Your task to perform on an android device: Open Chrome and go to the settings page Image 0: 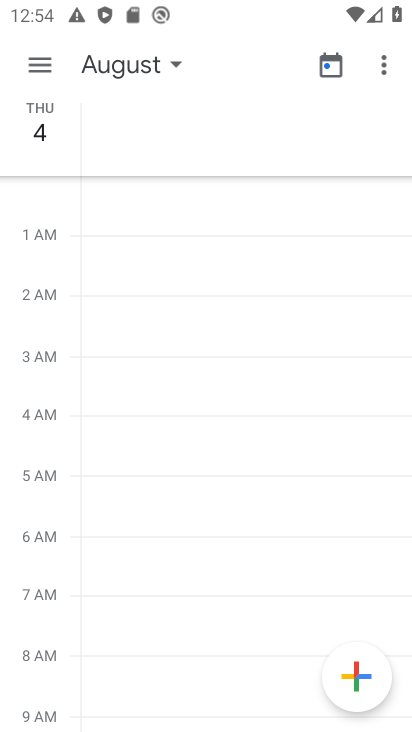
Step 0: press home button
Your task to perform on an android device: Open Chrome and go to the settings page Image 1: 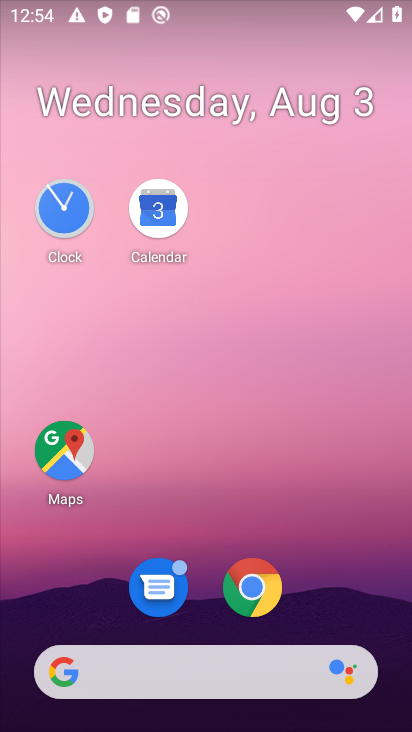
Step 1: click (247, 587)
Your task to perform on an android device: Open Chrome and go to the settings page Image 2: 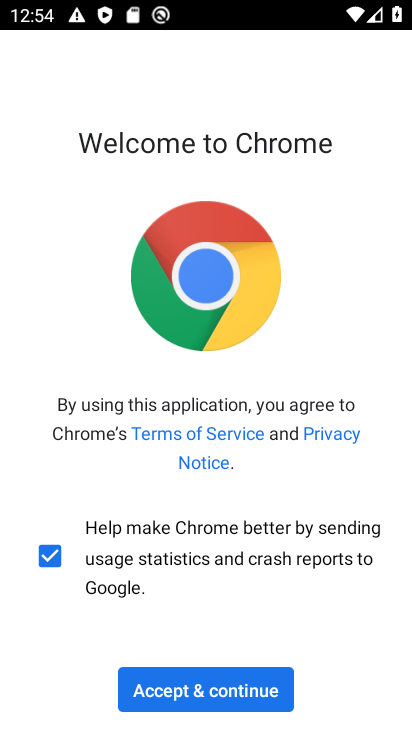
Step 2: click (194, 706)
Your task to perform on an android device: Open Chrome and go to the settings page Image 3: 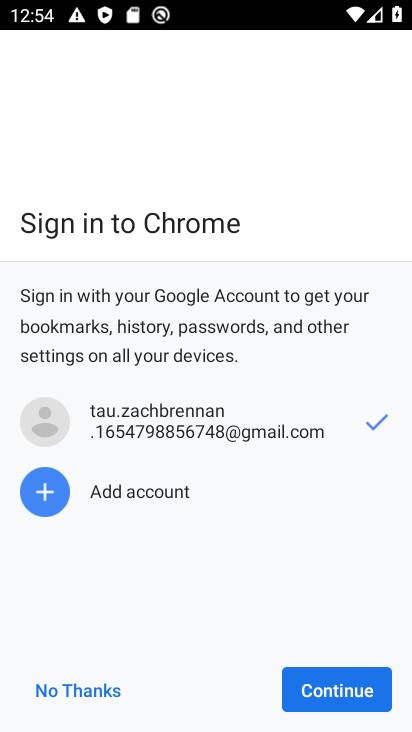
Step 3: click (335, 700)
Your task to perform on an android device: Open Chrome and go to the settings page Image 4: 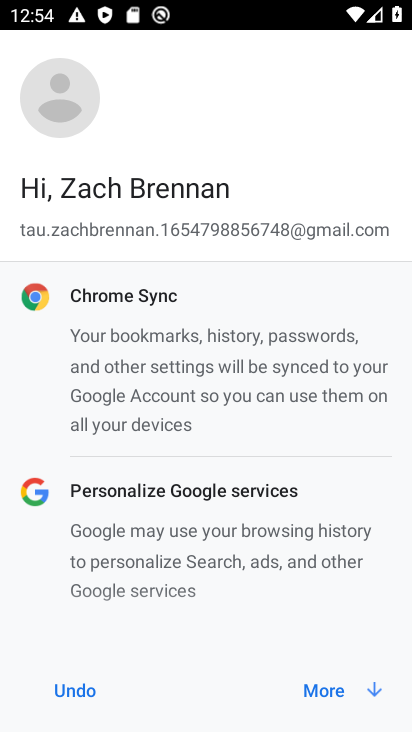
Step 4: click (335, 700)
Your task to perform on an android device: Open Chrome and go to the settings page Image 5: 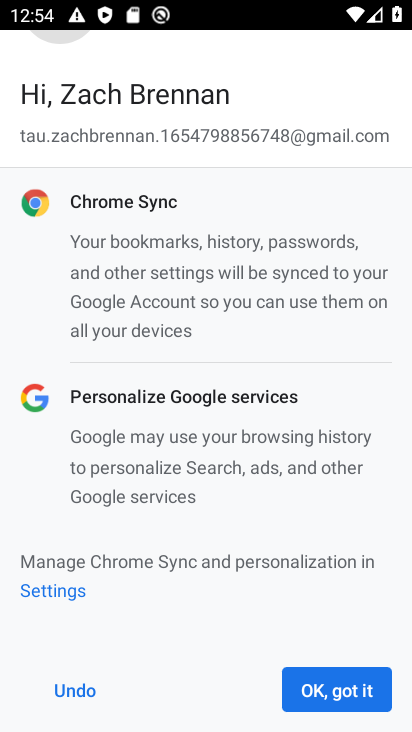
Step 5: click (335, 700)
Your task to perform on an android device: Open Chrome and go to the settings page Image 6: 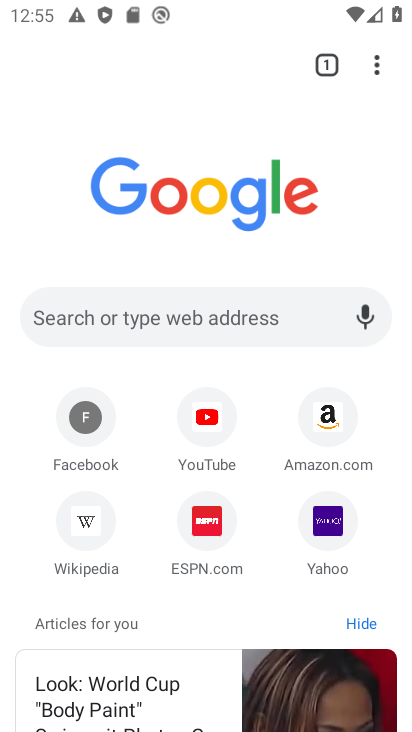
Step 6: click (368, 65)
Your task to perform on an android device: Open Chrome and go to the settings page Image 7: 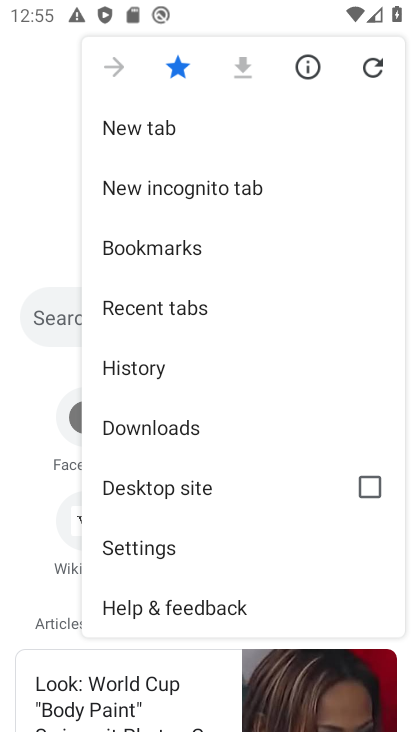
Step 7: click (154, 552)
Your task to perform on an android device: Open Chrome and go to the settings page Image 8: 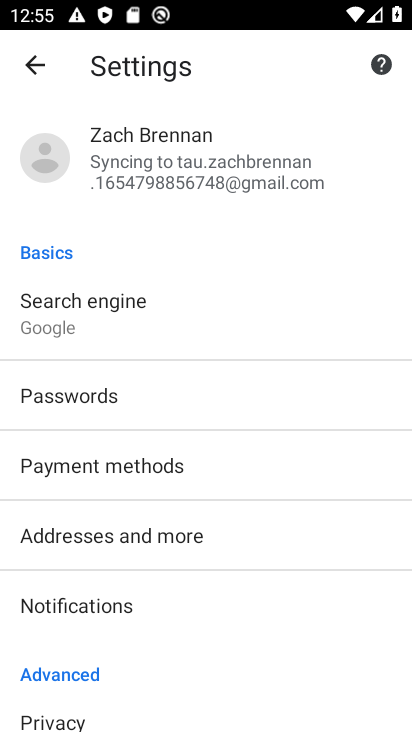
Step 8: task complete